Your task to perform on an android device: check data usage Image 0: 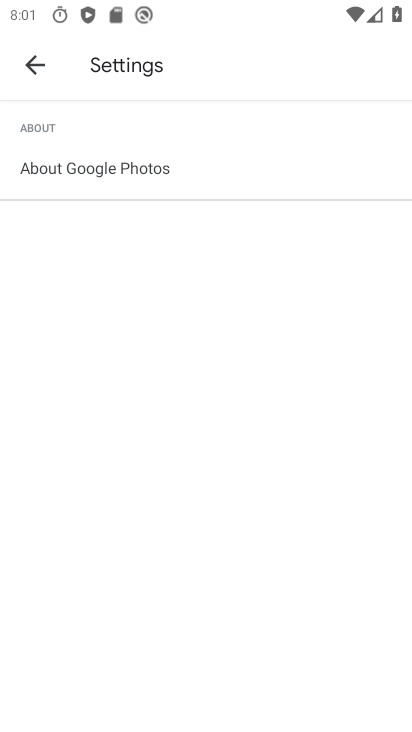
Step 0: press home button
Your task to perform on an android device: check data usage Image 1: 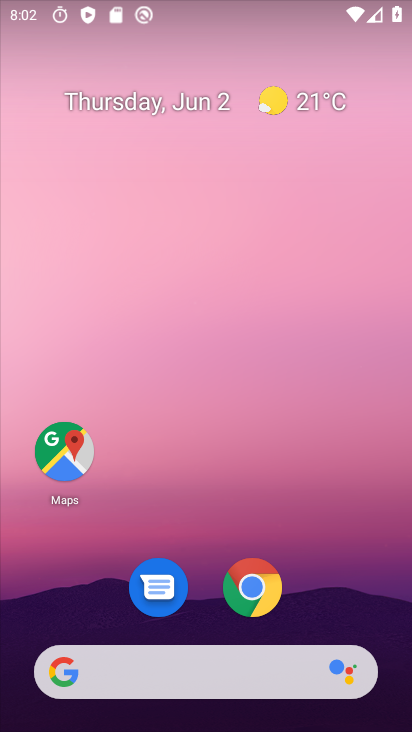
Step 1: drag from (340, 633) to (351, 5)
Your task to perform on an android device: check data usage Image 2: 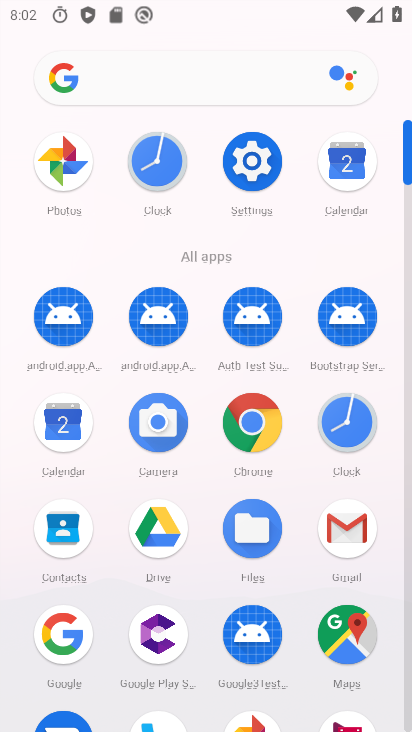
Step 2: click (249, 156)
Your task to perform on an android device: check data usage Image 3: 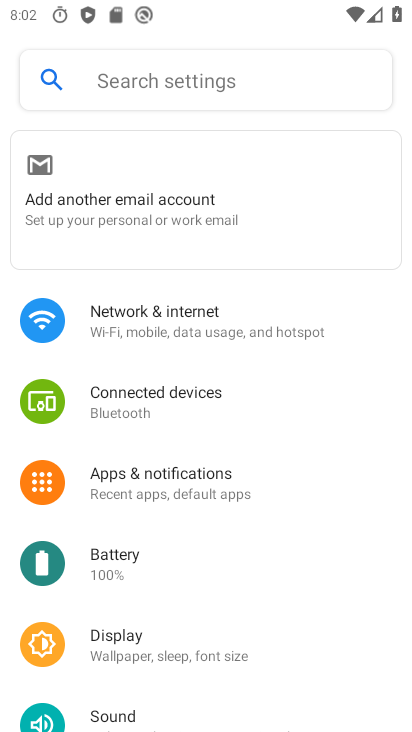
Step 3: click (142, 319)
Your task to perform on an android device: check data usage Image 4: 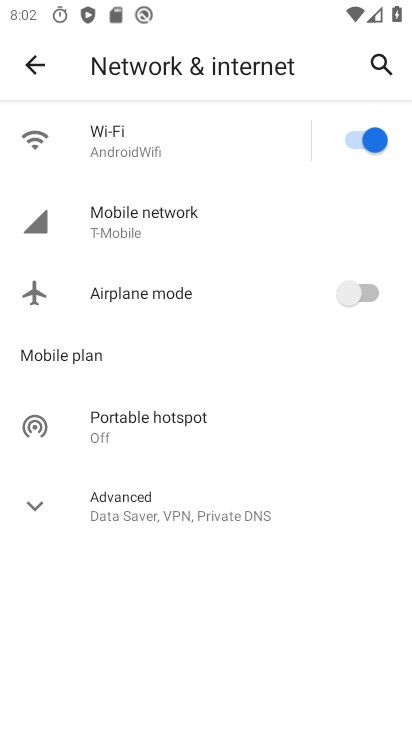
Step 4: click (124, 234)
Your task to perform on an android device: check data usage Image 5: 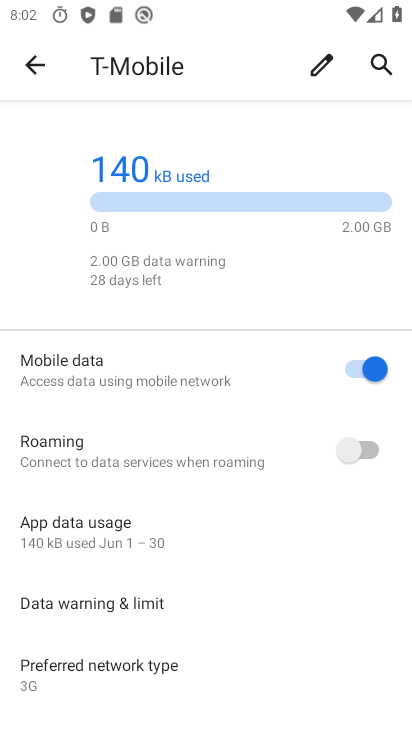
Step 5: drag from (134, 486) to (122, 208)
Your task to perform on an android device: check data usage Image 6: 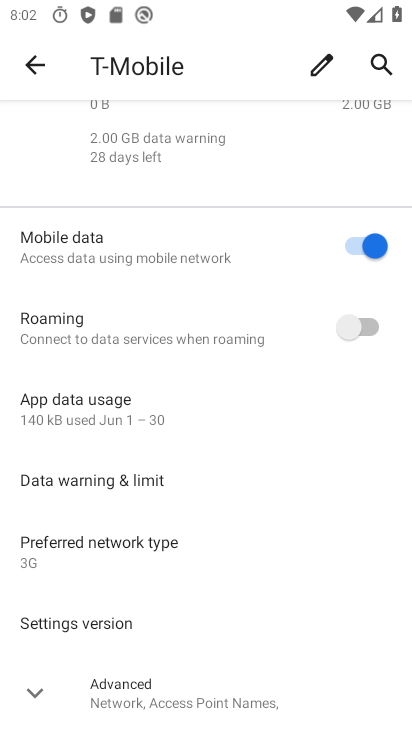
Step 6: click (87, 404)
Your task to perform on an android device: check data usage Image 7: 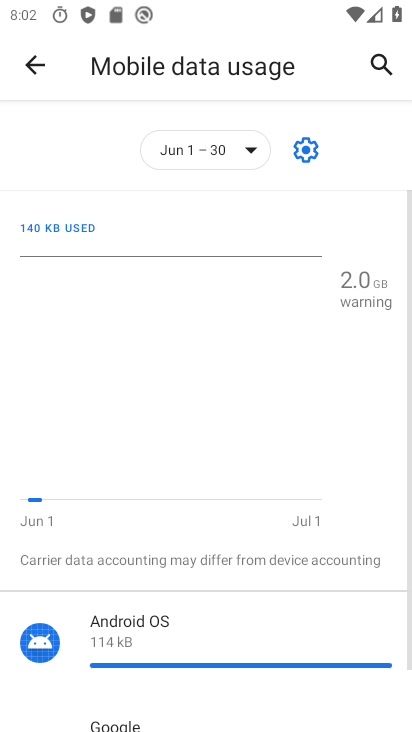
Step 7: task complete